Your task to perform on an android device: turn on bluetooth scan Image 0: 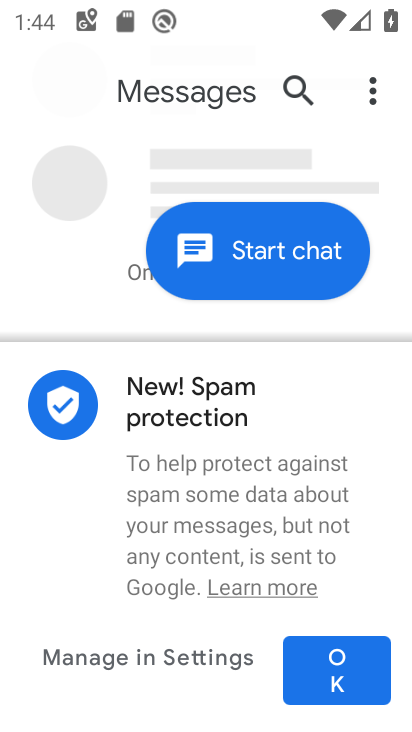
Step 0: press home button
Your task to perform on an android device: turn on bluetooth scan Image 1: 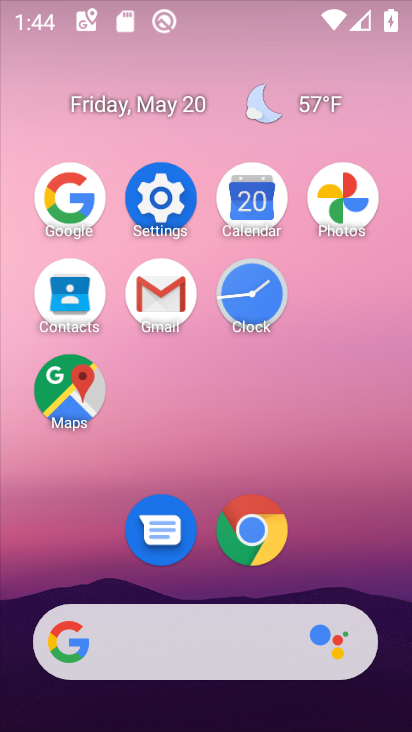
Step 1: click (167, 203)
Your task to perform on an android device: turn on bluetooth scan Image 2: 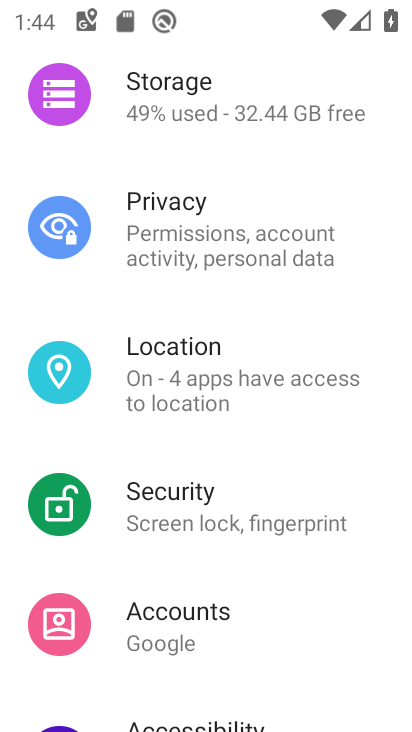
Step 2: drag from (279, 589) to (261, 162)
Your task to perform on an android device: turn on bluetooth scan Image 3: 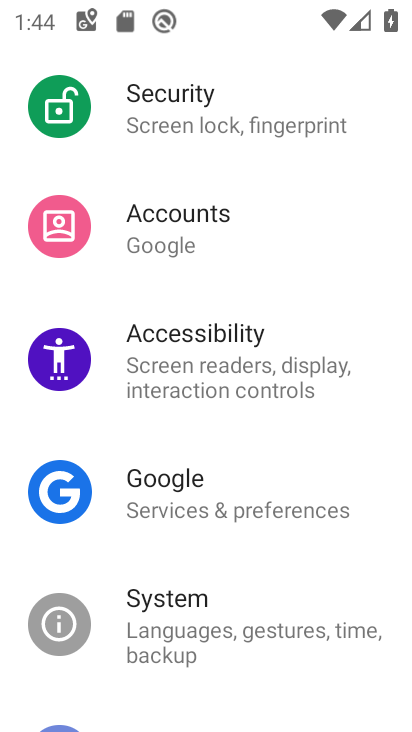
Step 3: drag from (225, 142) to (253, 458)
Your task to perform on an android device: turn on bluetooth scan Image 4: 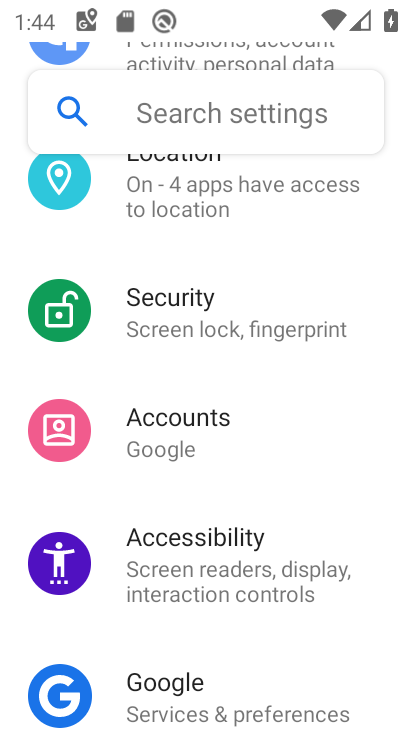
Step 4: click (235, 199)
Your task to perform on an android device: turn on bluetooth scan Image 5: 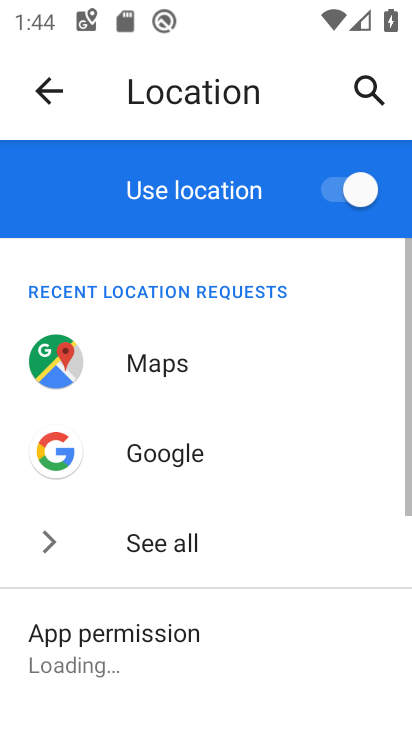
Step 5: drag from (273, 571) to (285, 160)
Your task to perform on an android device: turn on bluetooth scan Image 6: 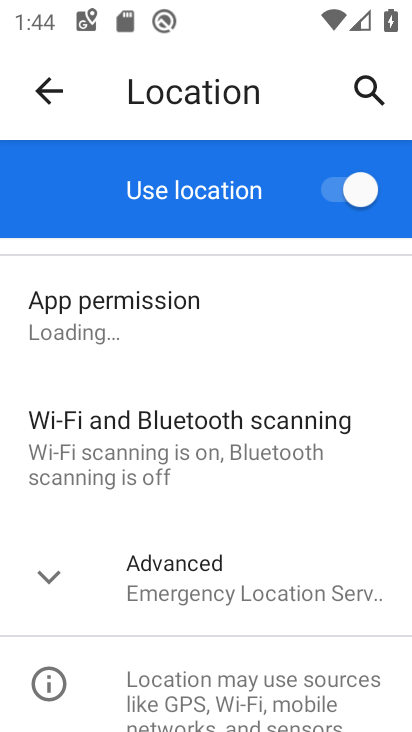
Step 6: click (258, 452)
Your task to perform on an android device: turn on bluetooth scan Image 7: 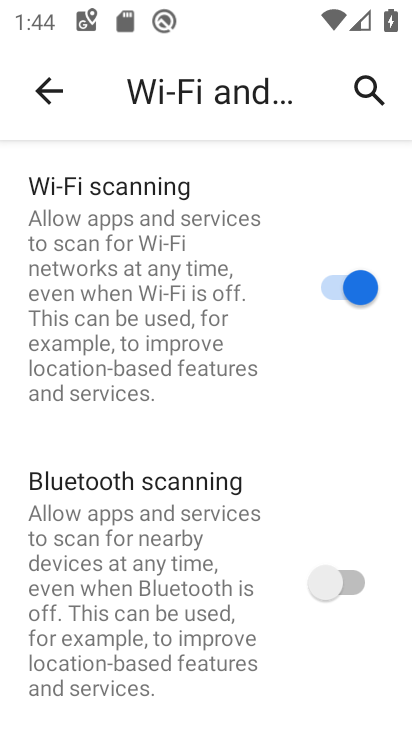
Step 7: click (324, 566)
Your task to perform on an android device: turn on bluetooth scan Image 8: 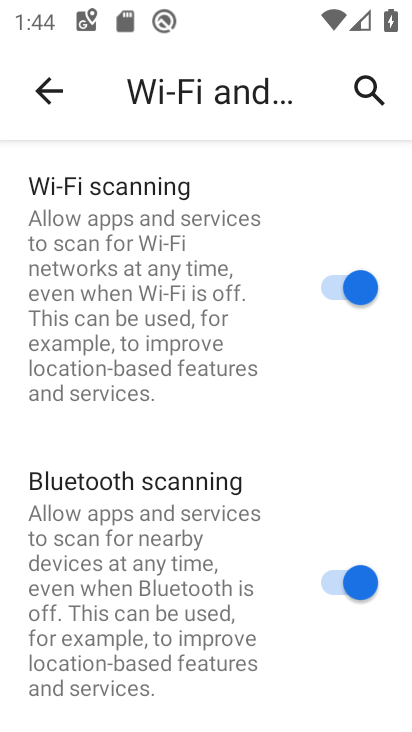
Step 8: task complete